Your task to perform on an android device: create a new album in the google photos Image 0: 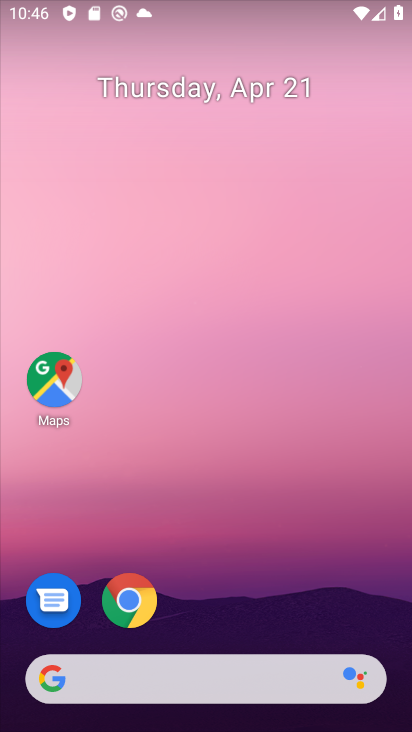
Step 0: drag from (370, 436) to (326, 38)
Your task to perform on an android device: create a new album in the google photos Image 1: 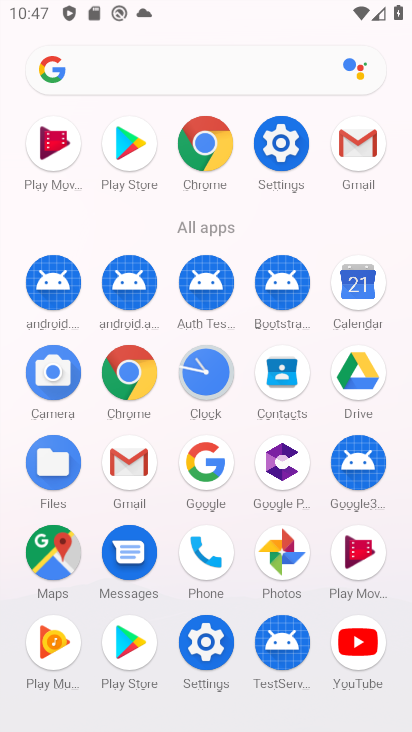
Step 1: click (291, 545)
Your task to perform on an android device: create a new album in the google photos Image 2: 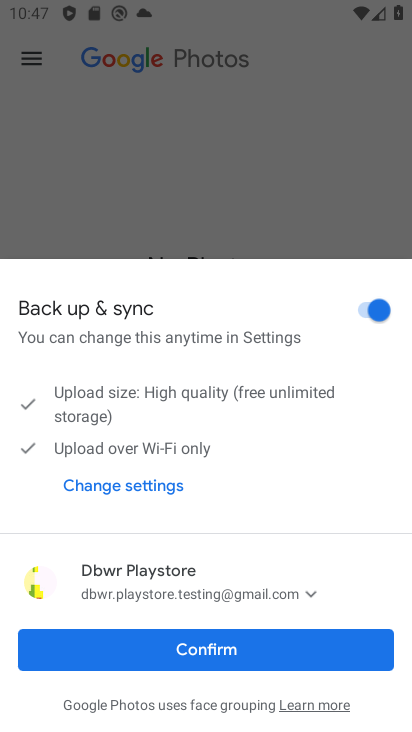
Step 2: click (211, 650)
Your task to perform on an android device: create a new album in the google photos Image 3: 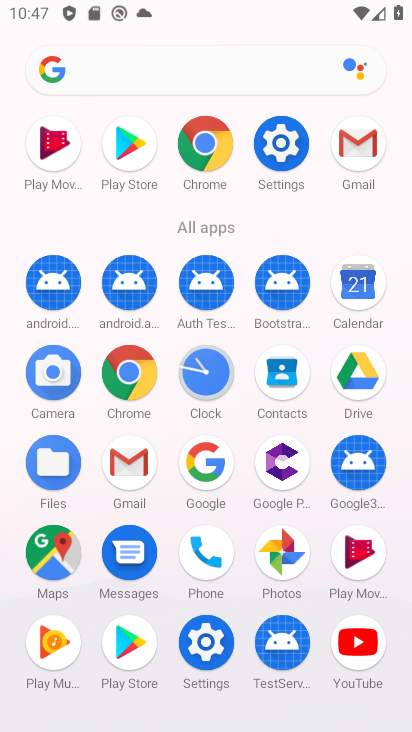
Step 3: click (262, 540)
Your task to perform on an android device: create a new album in the google photos Image 4: 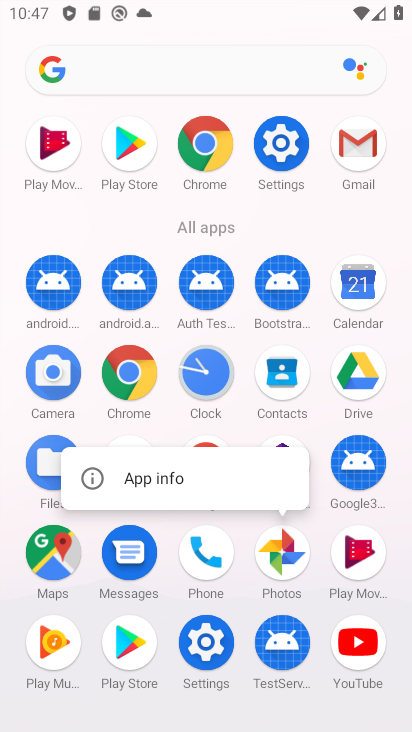
Step 4: click (277, 548)
Your task to perform on an android device: create a new album in the google photos Image 5: 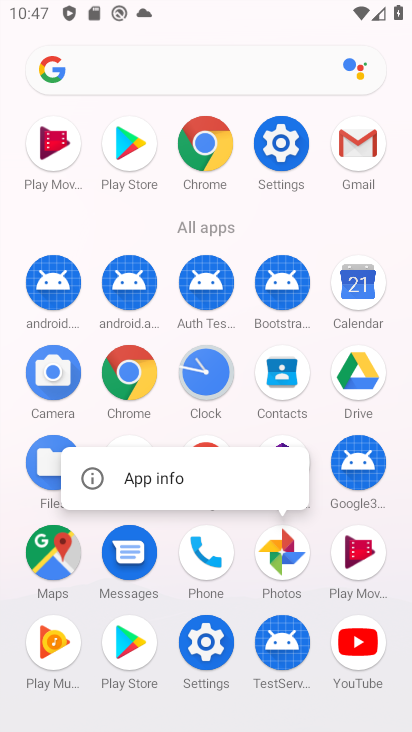
Step 5: click (277, 548)
Your task to perform on an android device: create a new album in the google photos Image 6: 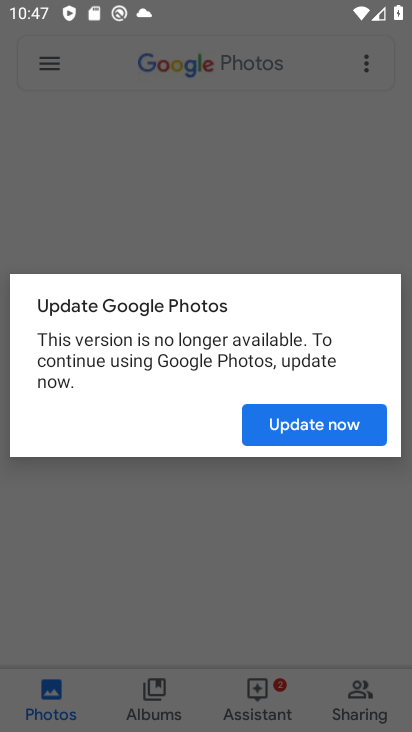
Step 6: click (335, 427)
Your task to perform on an android device: create a new album in the google photos Image 7: 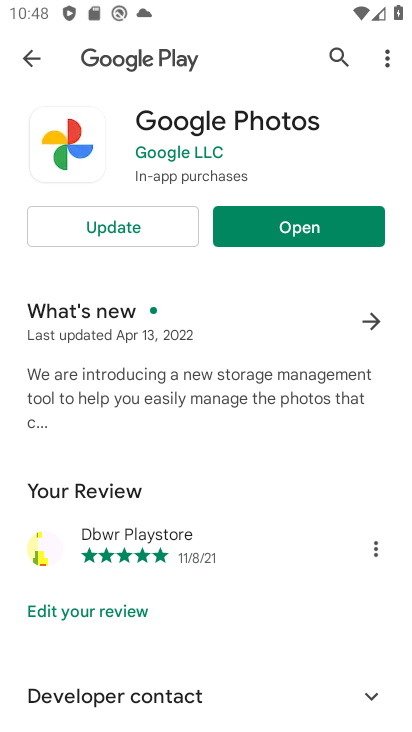
Step 7: click (95, 238)
Your task to perform on an android device: create a new album in the google photos Image 8: 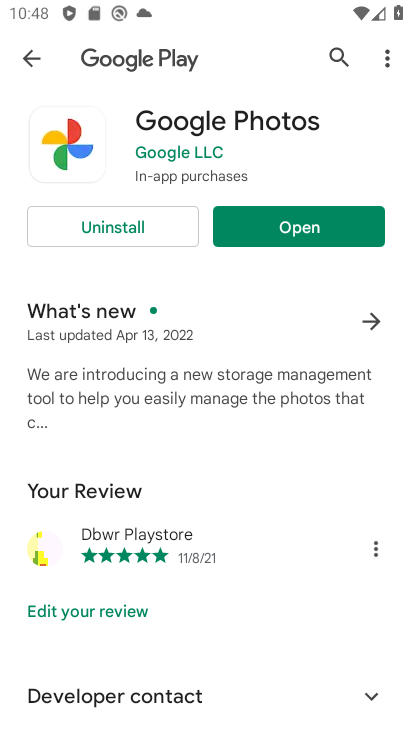
Step 8: click (302, 232)
Your task to perform on an android device: create a new album in the google photos Image 9: 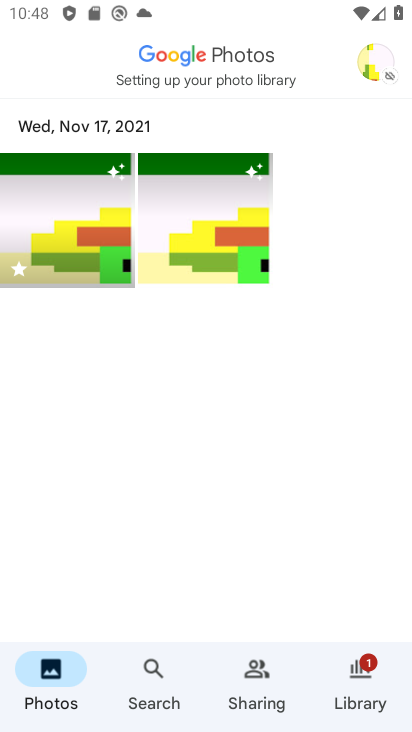
Step 9: click (149, 675)
Your task to perform on an android device: create a new album in the google photos Image 10: 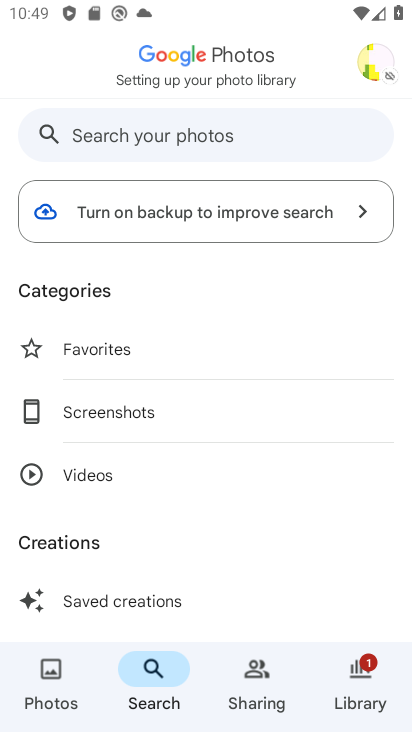
Step 10: task complete